Your task to perform on an android device: check the backup settings in the google photos Image 0: 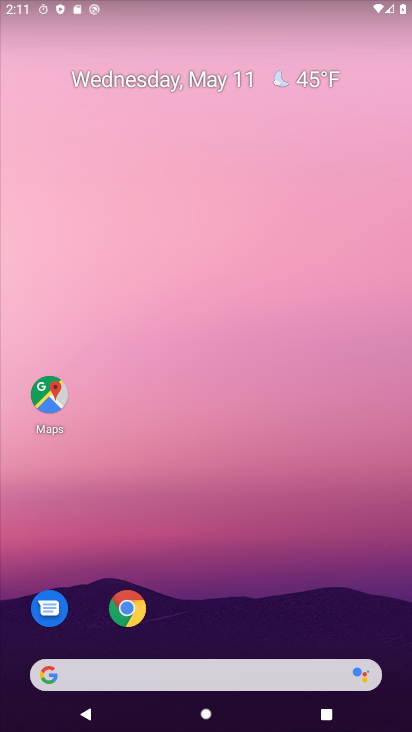
Step 0: drag from (205, 594) to (214, 155)
Your task to perform on an android device: check the backup settings in the google photos Image 1: 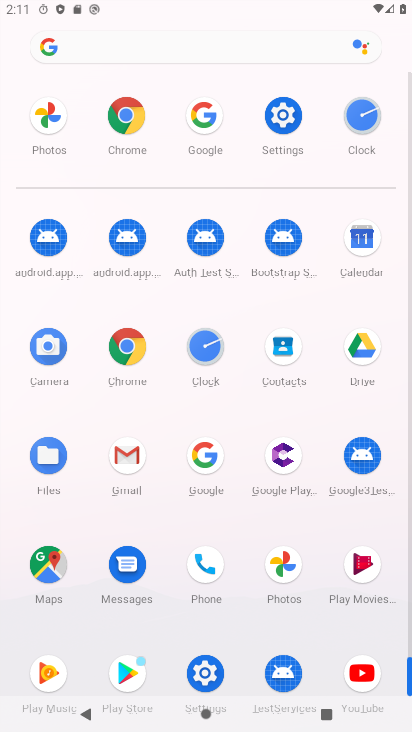
Step 1: click (46, 111)
Your task to perform on an android device: check the backup settings in the google photos Image 2: 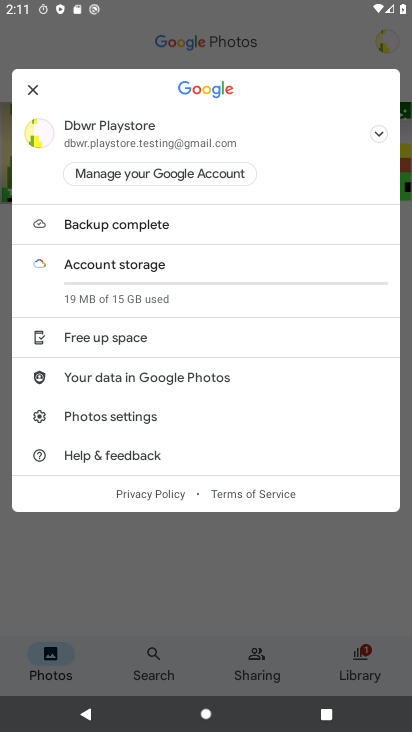
Step 2: click (131, 410)
Your task to perform on an android device: check the backup settings in the google photos Image 3: 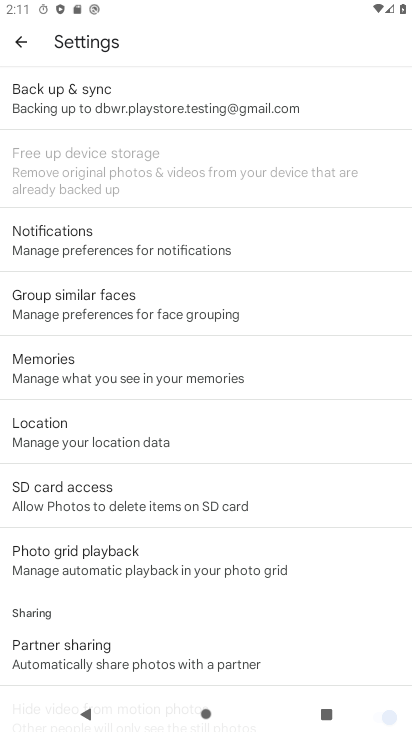
Step 3: click (125, 103)
Your task to perform on an android device: check the backup settings in the google photos Image 4: 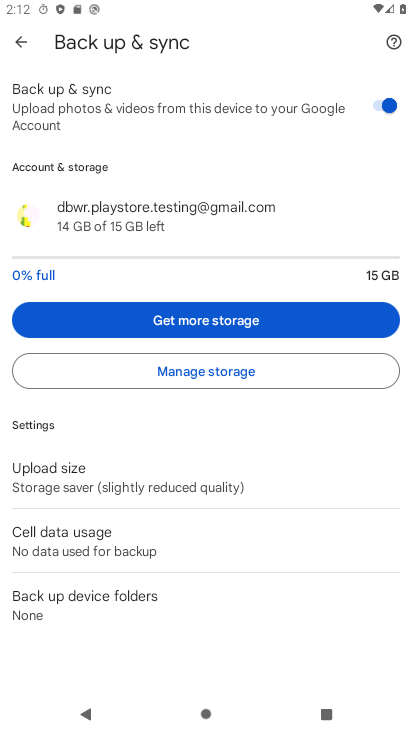
Step 4: task complete